Your task to perform on an android device: Is it going to rain today? Image 0: 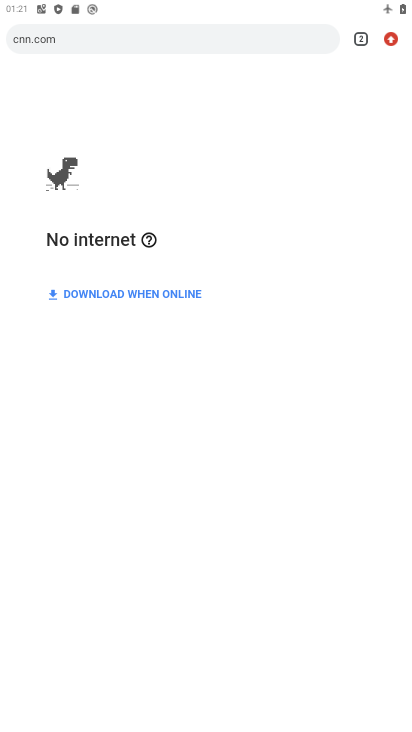
Step 0: task complete